Your task to perform on an android device: Search for pizza restaurants on Maps Image 0: 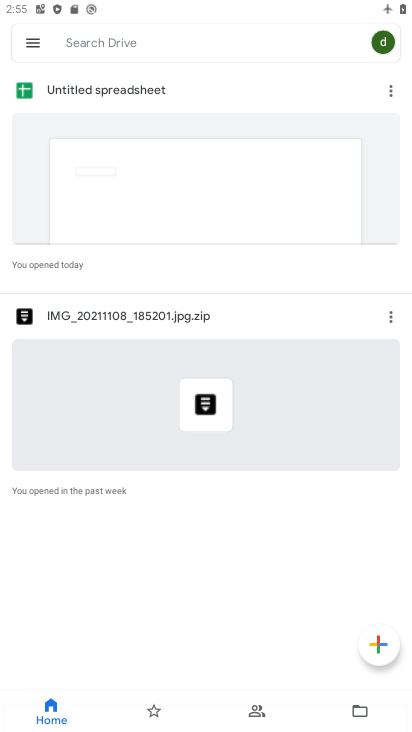
Step 0: press home button
Your task to perform on an android device: Search for pizza restaurants on Maps Image 1: 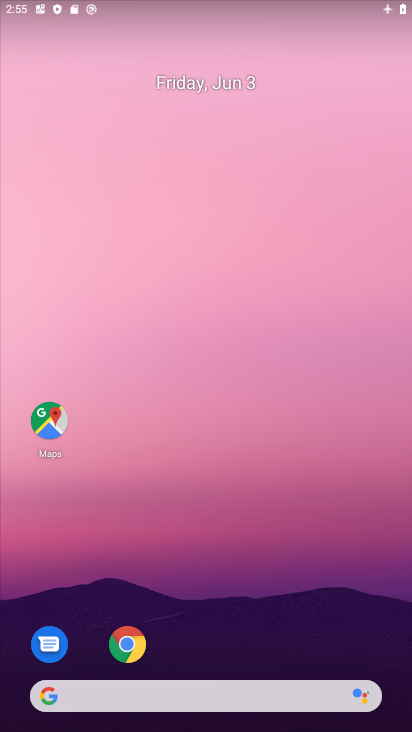
Step 1: click (37, 408)
Your task to perform on an android device: Search for pizza restaurants on Maps Image 2: 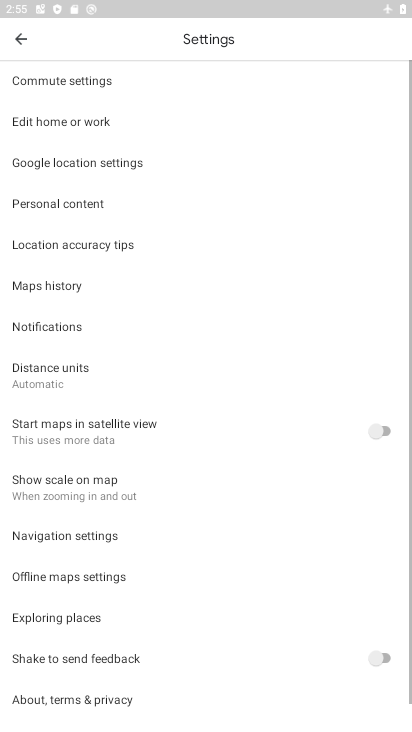
Step 2: click (23, 38)
Your task to perform on an android device: Search for pizza restaurants on Maps Image 3: 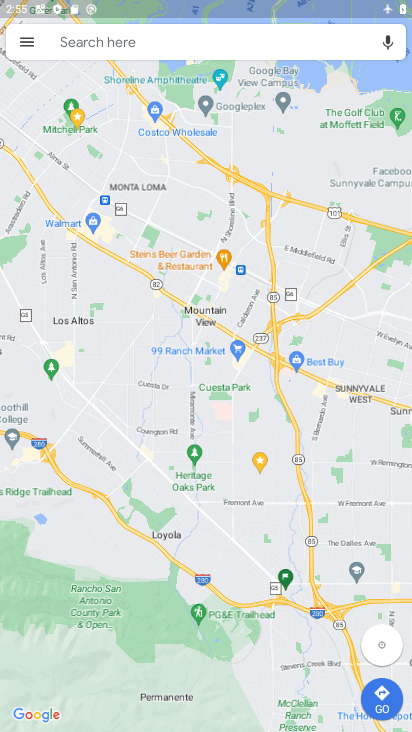
Step 3: click (117, 40)
Your task to perform on an android device: Search for pizza restaurants on Maps Image 4: 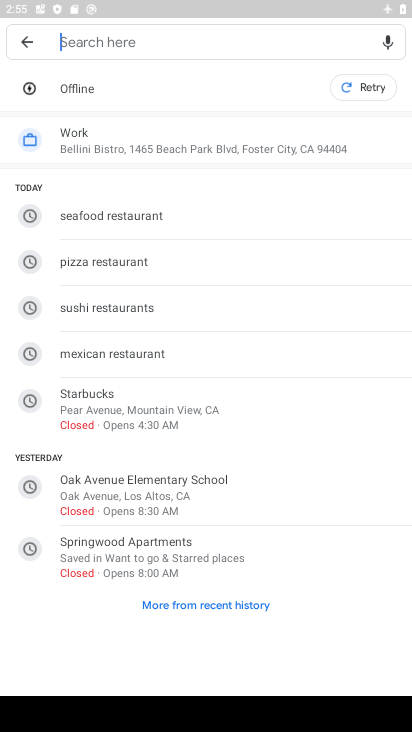
Step 4: click (127, 257)
Your task to perform on an android device: Search for pizza restaurants on Maps Image 5: 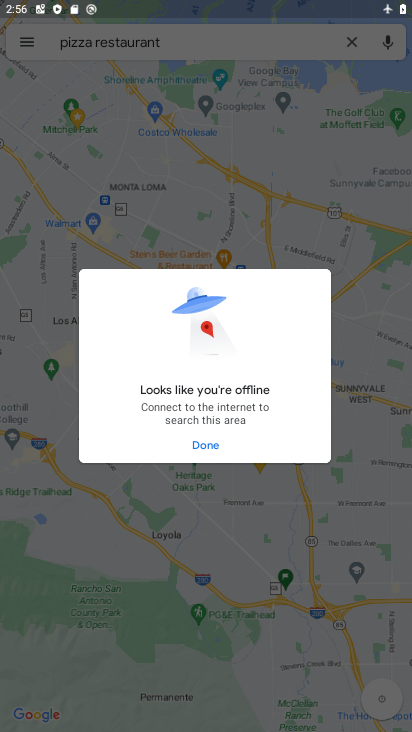
Step 5: task complete